Your task to perform on an android device: Open network settings Image 0: 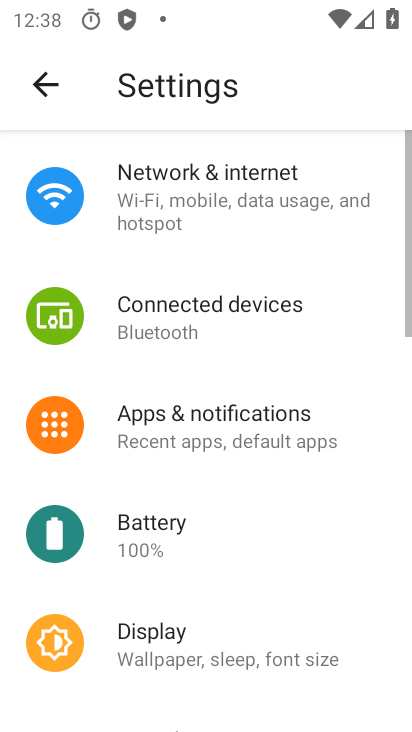
Step 0: press home button
Your task to perform on an android device: Open network settings Image 1: 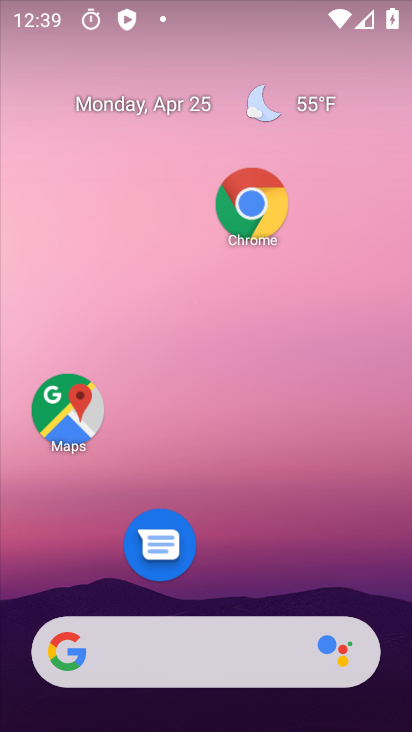
Step 1: drag from (295, 680) to (272, 174)
Your task to perform on an android device: Open network settings Image 2: 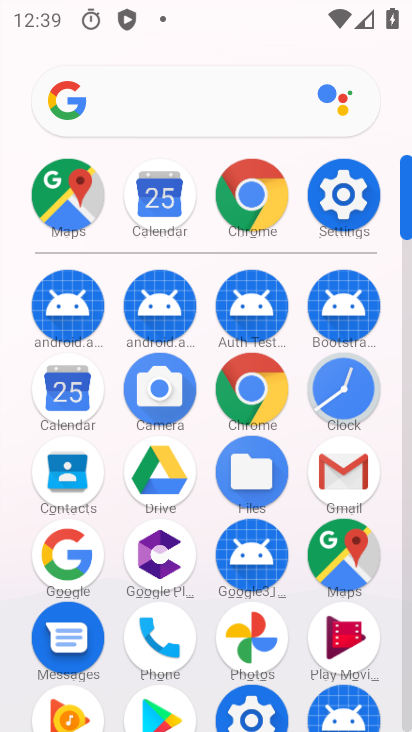
Step 2: click (342, 191)
Your task to perform on an android device: Open network settings Image 3: 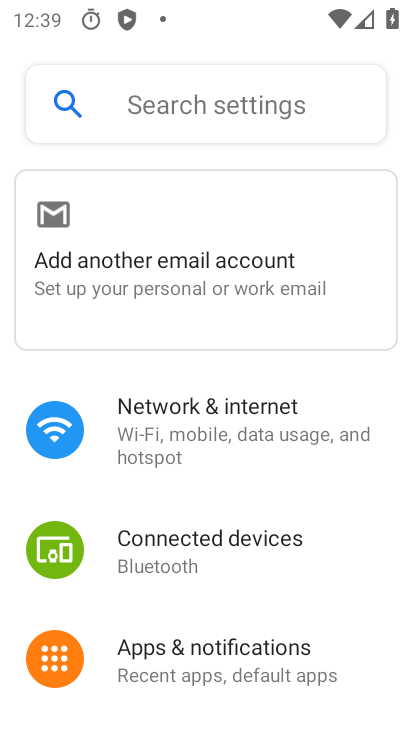
Step 3: click (232, 424)
Your task to perform on an android device: Open network settings Image 4: 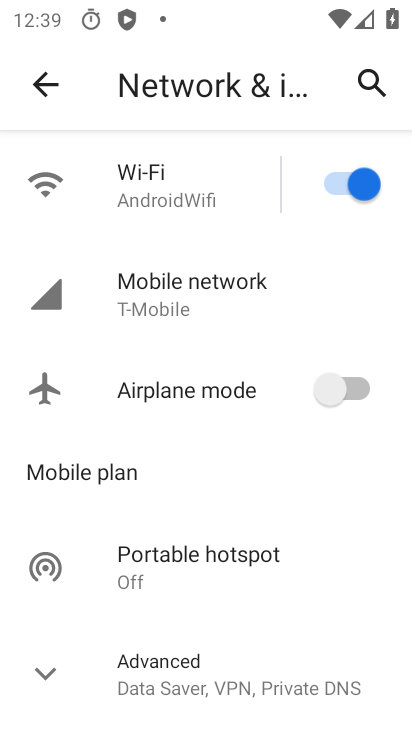
Step 4: click (184, 303)
Your task to perform on an android device: Open network settings Image 5: 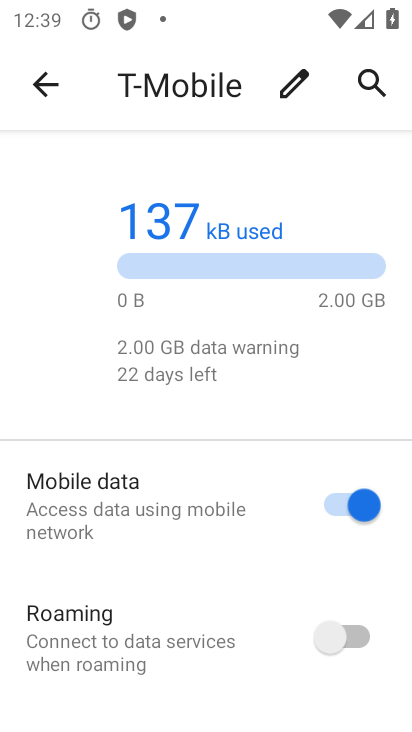
Step 5: task complete